Your task to perform on an android device: Open calendar and show me the fourth week of next month Image 0: 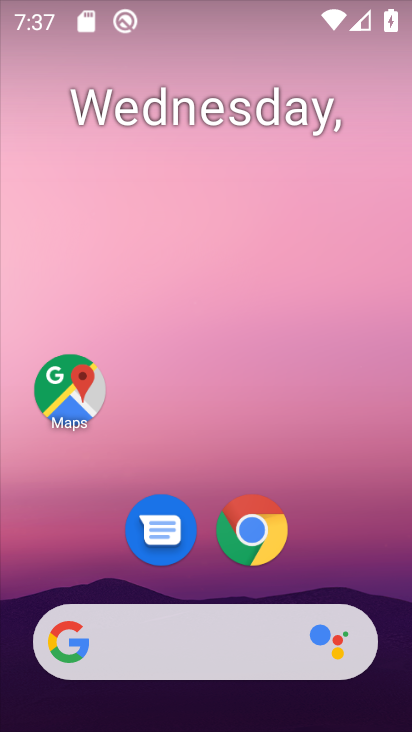
Step 0: drag from (400, 631) to (322, 156)
Your task to perform on an android device: Open calendar and show me the fourth week of next month Image 1: 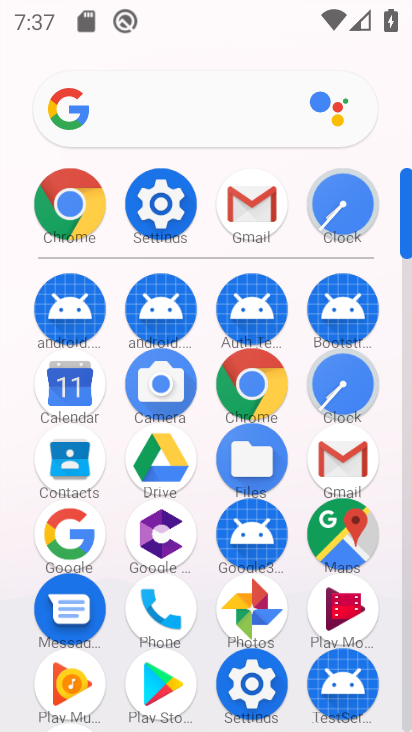
Step 1: click (75, 375)
Your task to perform on an android device: Open calendar and show me the fourth week of next month Image 2: 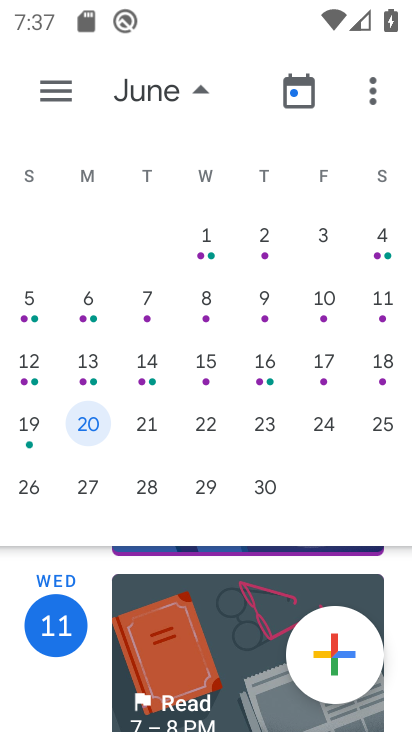
Step 2: click (159, 87)
Your task to perform on an android device: Open calendar and show me the fourth week of next month Image 3: 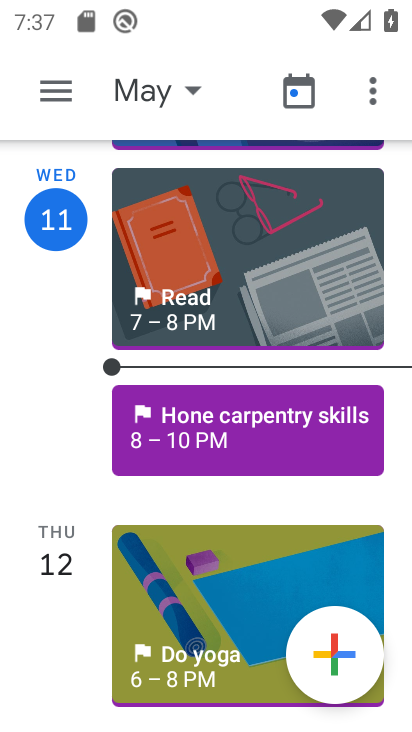
Step 3: click (159, 87)
Your task to perform on an android device: Open calendar and show me the fourth week of next month Image 4: 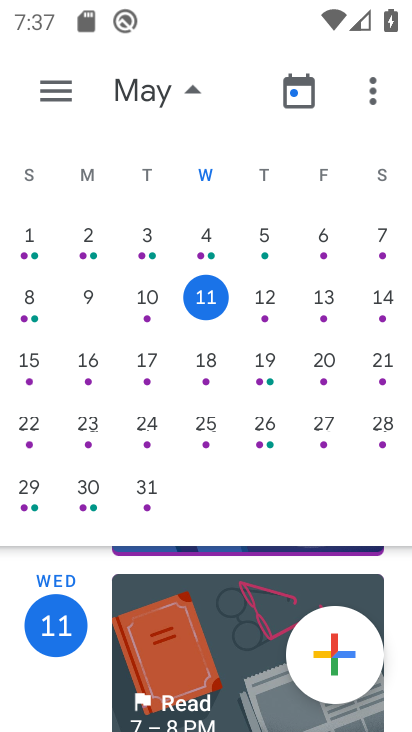
Step 4: drag from (331, 241) to (49, 243)
Your task to perform on an android device: Open calendar and show me the fourth week of next month Image 5: 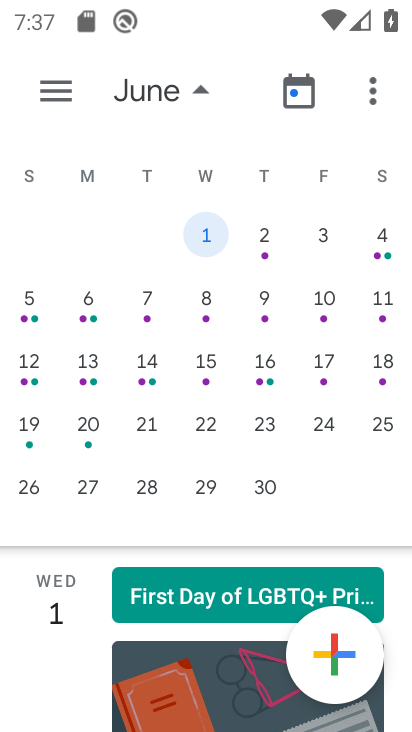
Step 5: click (91, 487)
Your task to perform on an android device: Open calendar and show me the fourth week of next month Image 6: 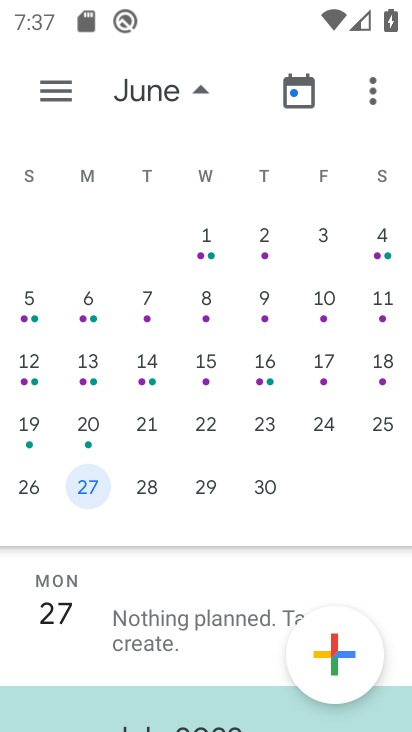
Step 6: task complete